Your task to perform on an android device: What's on my calendar today? Image 0: 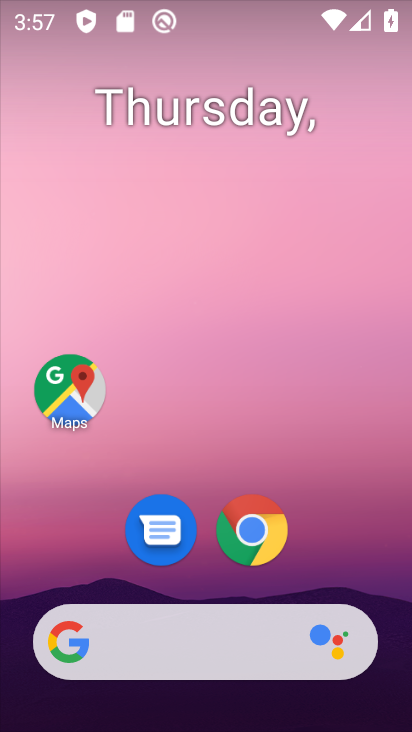
Step 0: drag from (320, 538) to (295, 137)
Your task to perform on an android device: What's on my calendar today? Image 1: 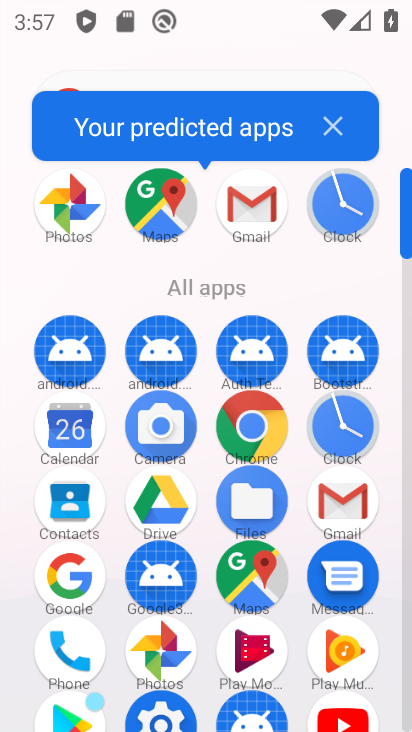
Step 1: click (73, 431)
Your task to perform on an android device: What's on my calendar today? Image 2: 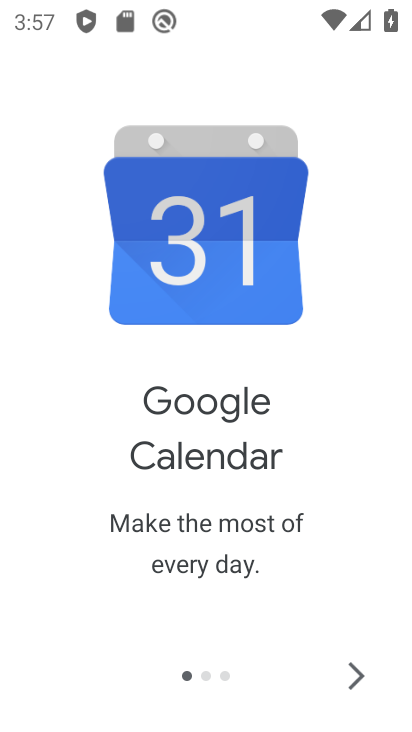
Step 2: click (361, 674)
Your task to perform on an android device: What's on my calendar today? Image 3: 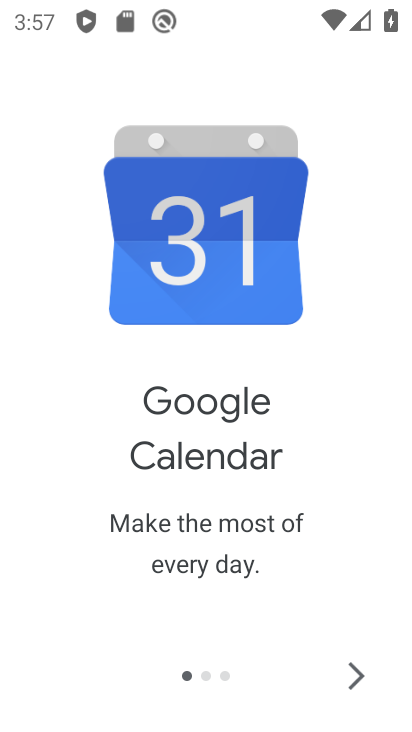
Step 3: click (360, 673)
Your task to perform on an android device: What's on my calendar today? Image 4: 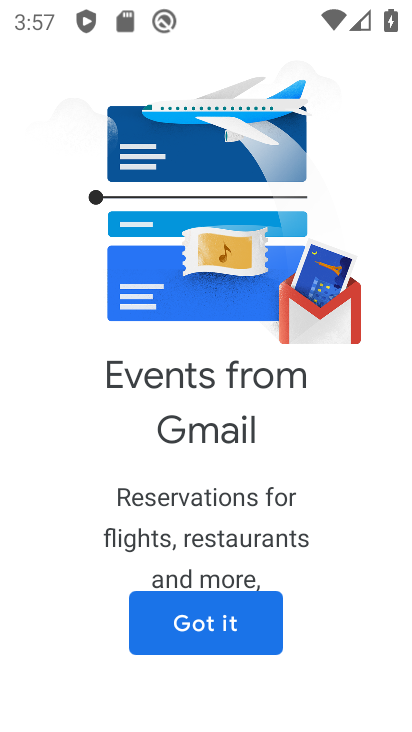
Step 4: click (258, 622)
Your task to perform on an android device: What's on my calendar today? Image 5: 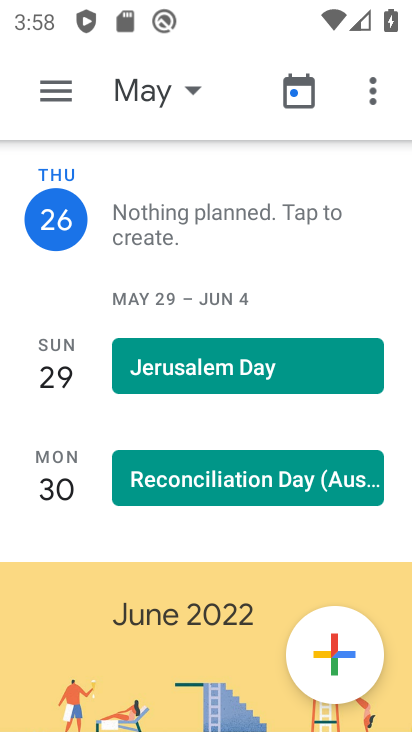
Step 5: task complete